Your task to perform on an android device: install app "Mercado Libre" Image 0: 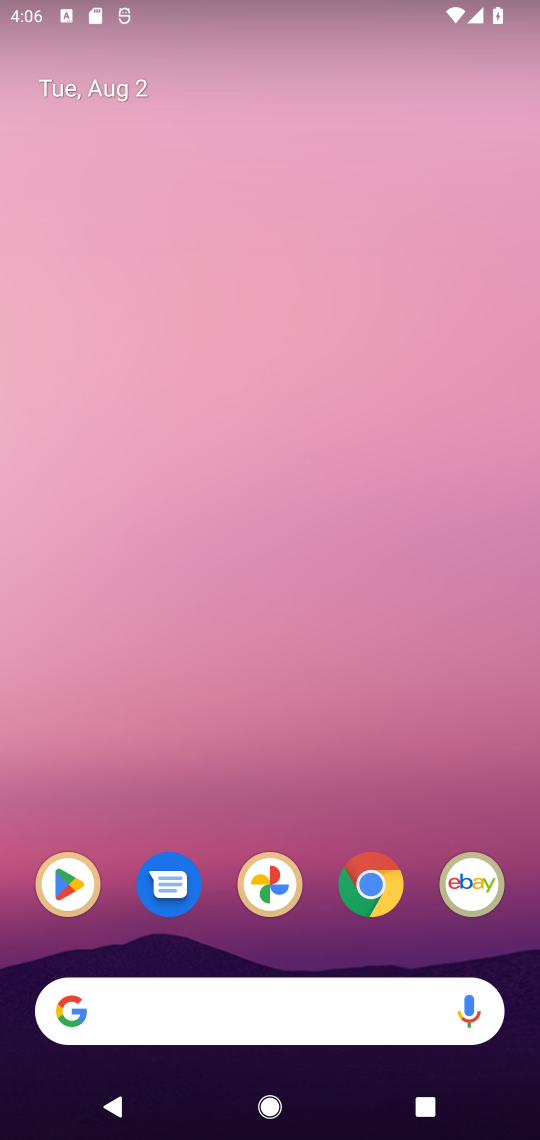
Step 0: drag from (254, 909) to (291, 117)
Your task to perform on an android device: install app "Mercado Libre" Image 1: 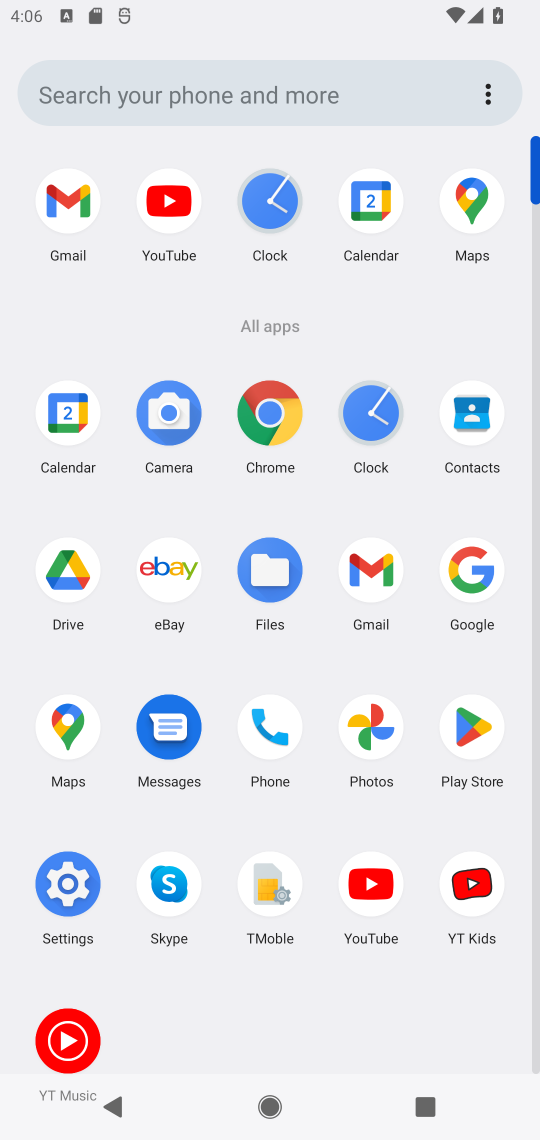
Step 1: click (481, 733)
Your task to perform on an android device: install app "Mercado Libre" Image 2: 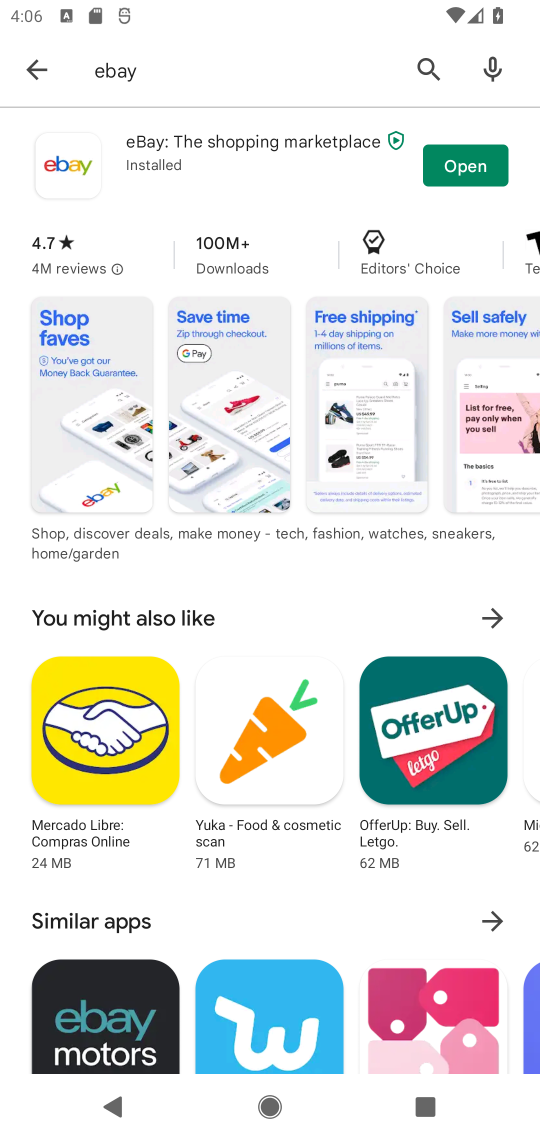
Step 2: click (34, 70)
Your task to perform on an android device: install app "Mercado Libre" Image 3: 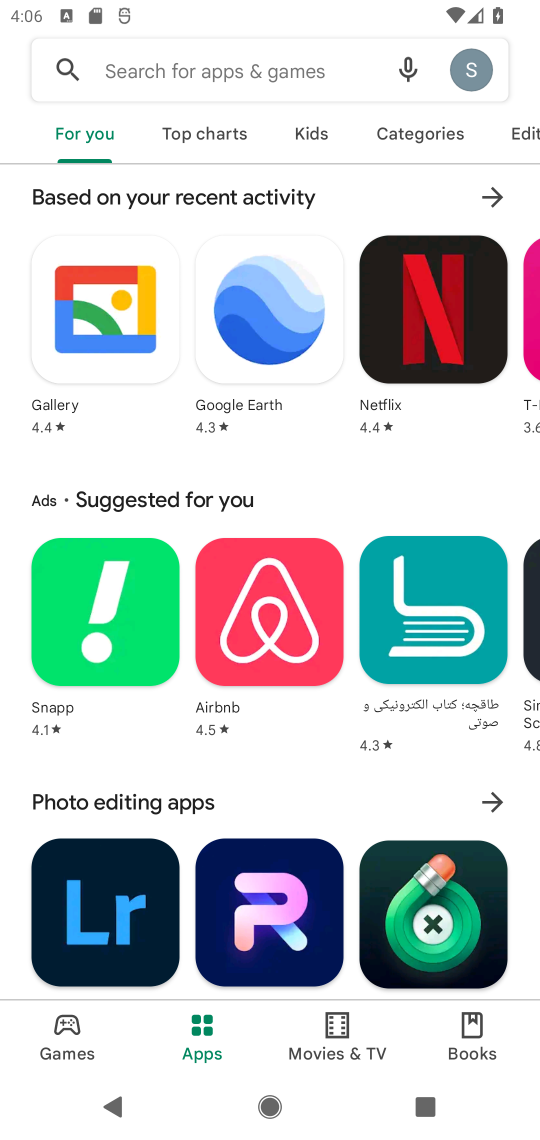
Step 3: click (237, 74)
Your task to perform on an android device: install app "Mercado Libre" Image 4: 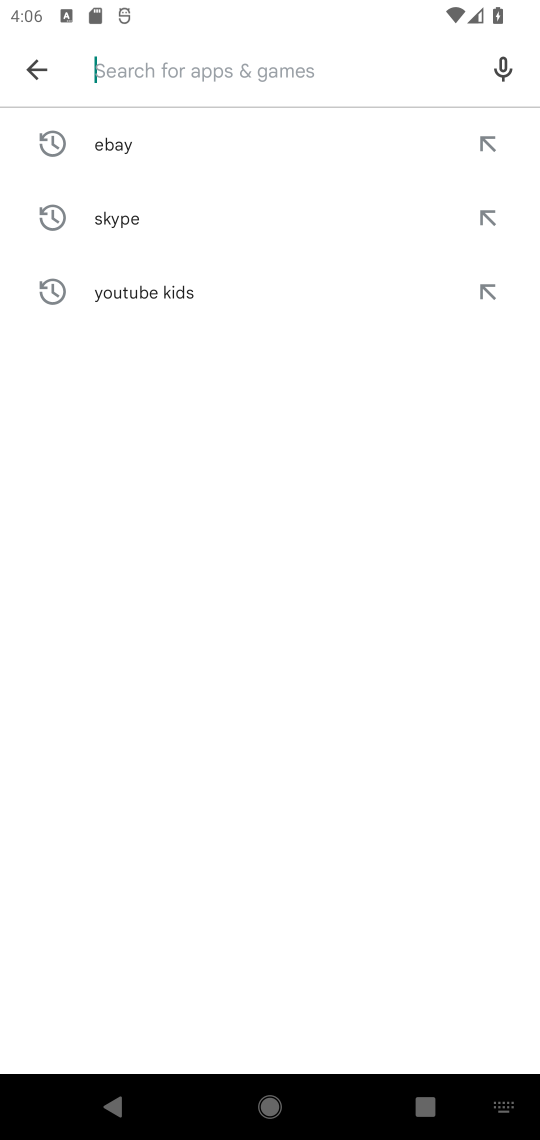
Step 4: type "Mercado Libre"
Your task to perform on an android device: install app "Mercado Libre" Image 5: 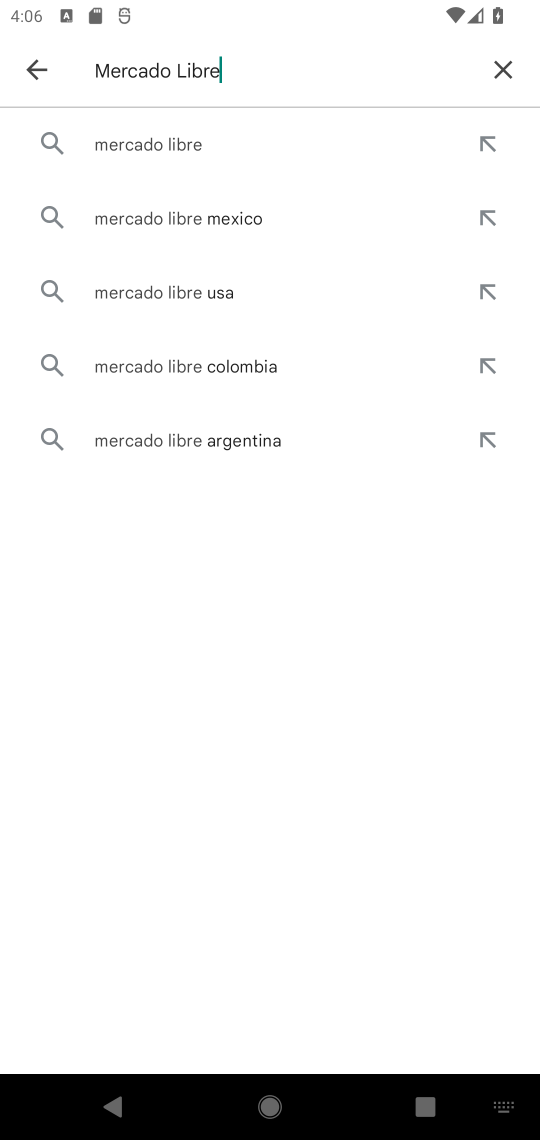
Step 5: click (180, 145)
Your task to perform on an android device: install app "Mercado Libre" Image 6: 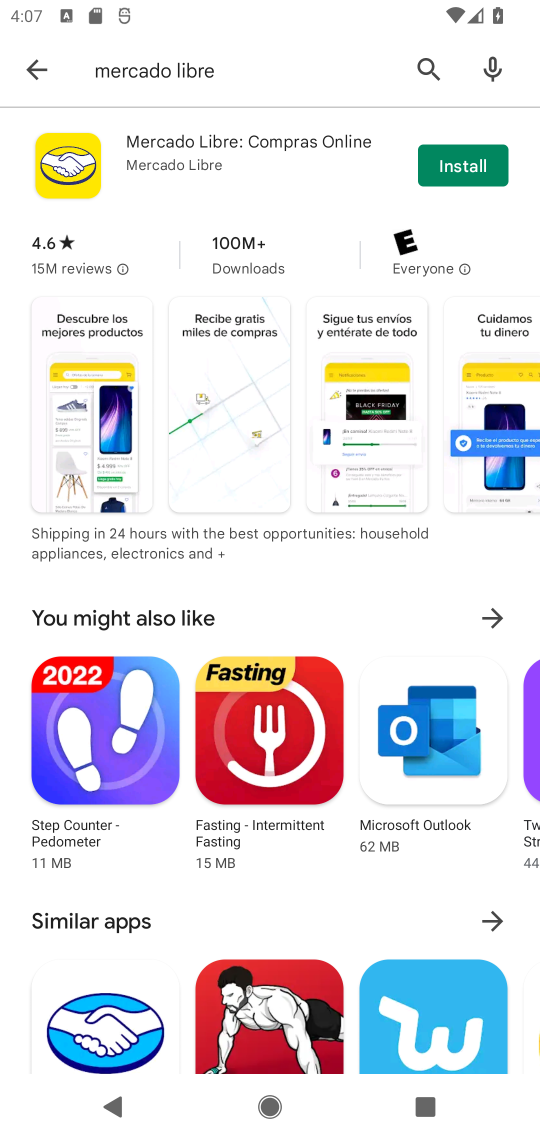
Step 6: click (471, 180)
Your task to perform on an android device: install app "Mercado Libre" Image 7: 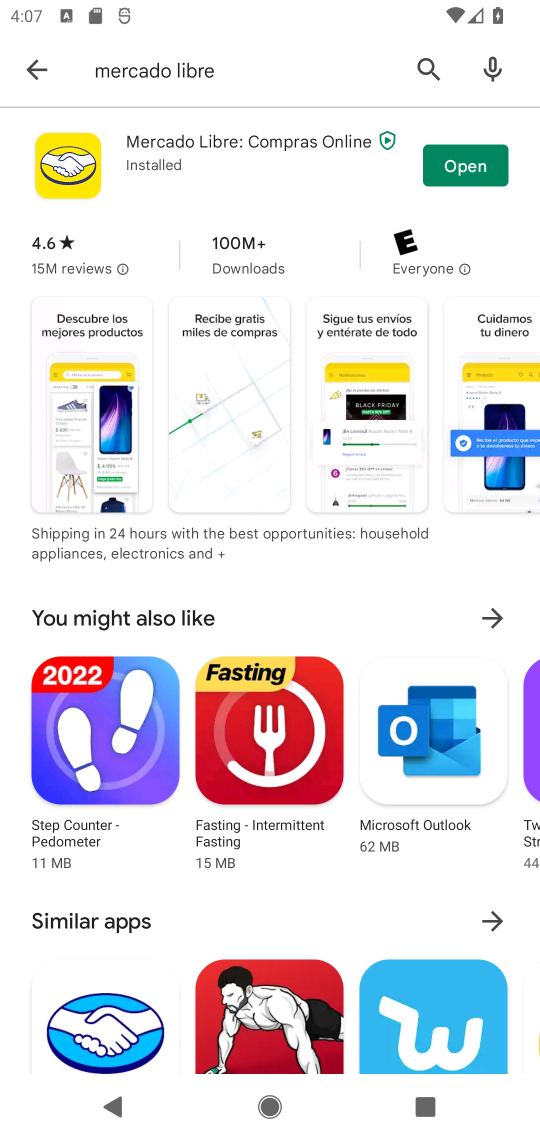
Step 7: task complete